Your task to perform on an android device: open app "Fetch Rewards" Image 0: 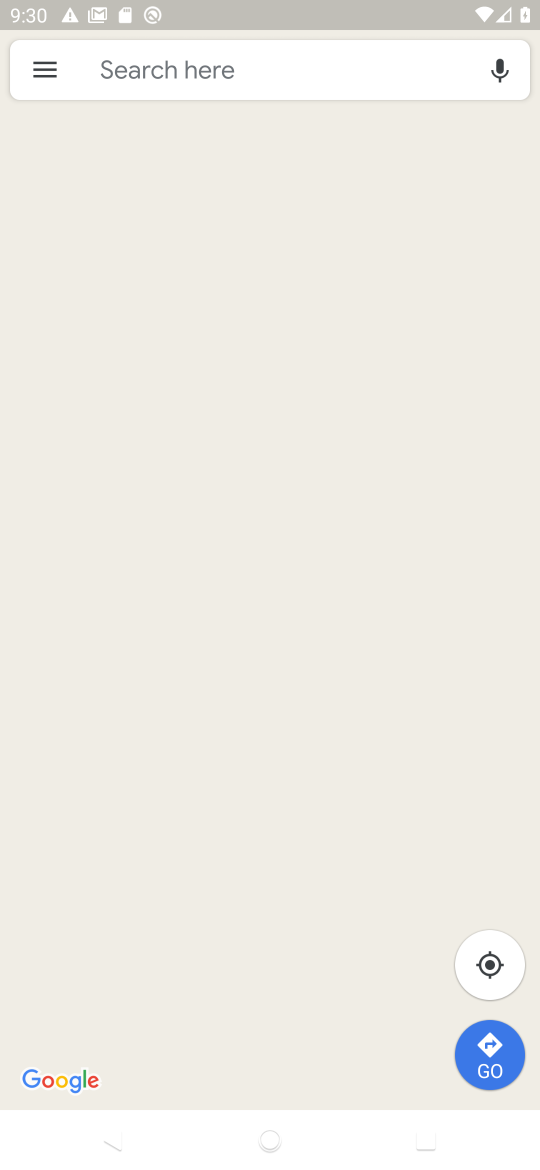
Step 0: click (271, 123)
Your task to perform on an android device: open app "Fetch Rewards" Image 1: 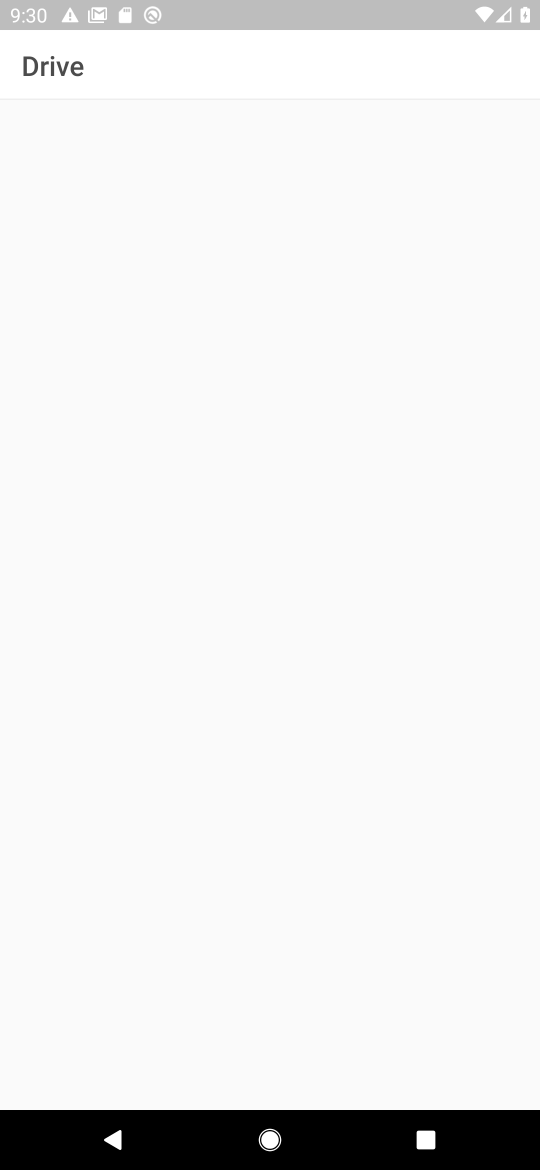
Step 1: press back button
Your task to perform on an android device: open app "Fetch Rewards" Image 2: 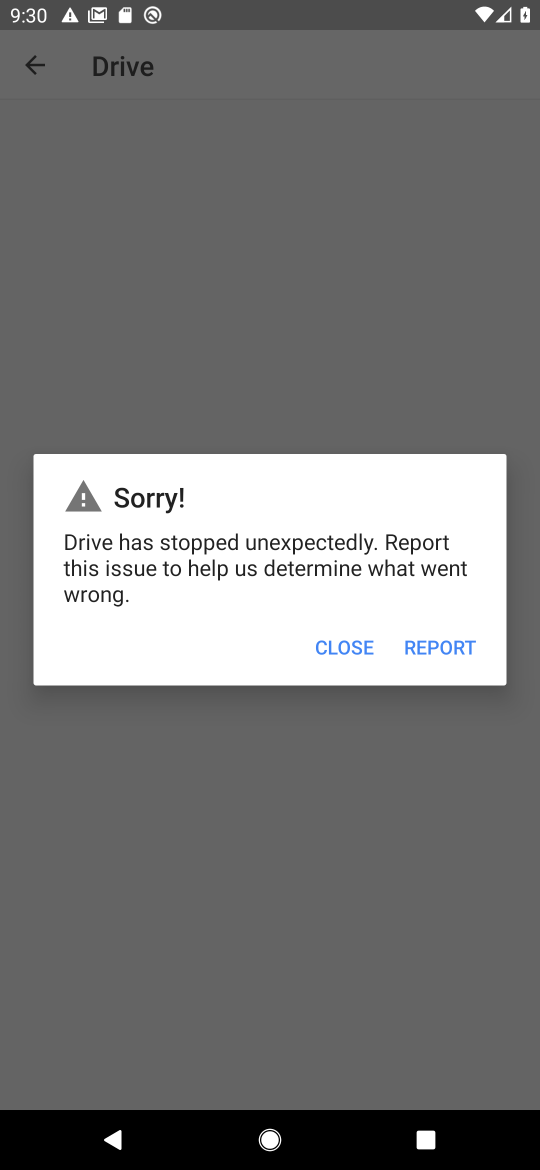
Step 2: press home button
Your task to perform on an android device: open app "Fetch Rewards" Image 3: 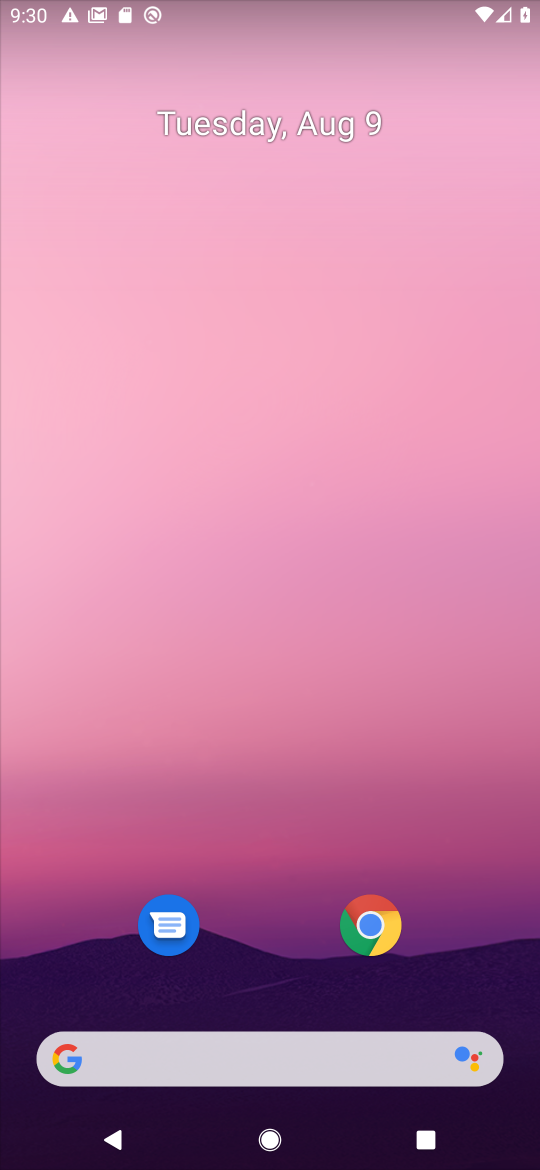
Step 3: drag from (258, 973) to (311, 3)
Your task to perform on an android device: open app "Fetch Rewards" Image 4: 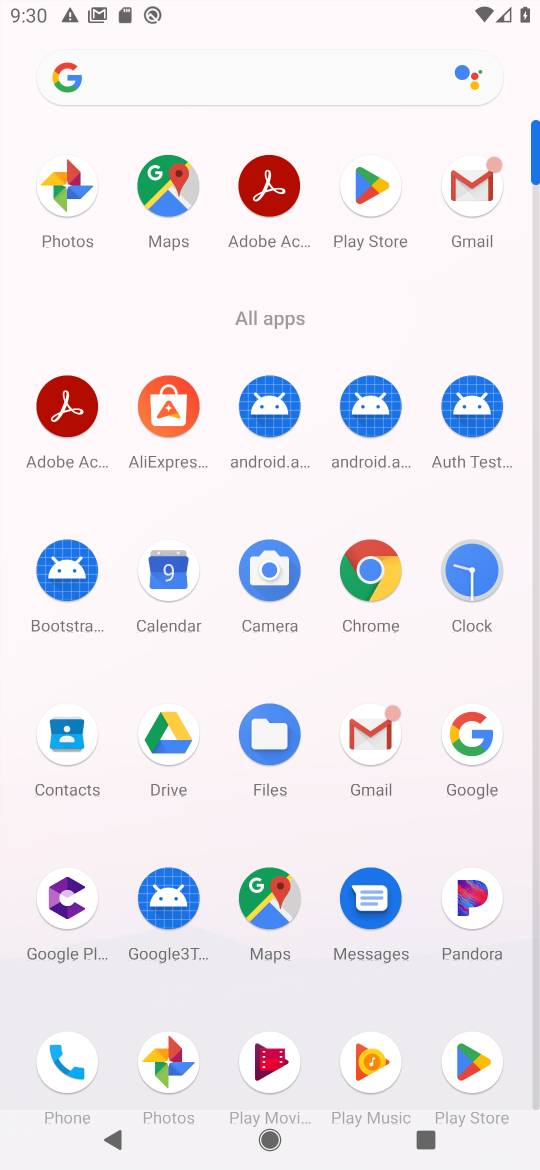
Step 4: click (385, 196)
Your task to perform on an android device: open app "Fetch Rewards" Image 5: 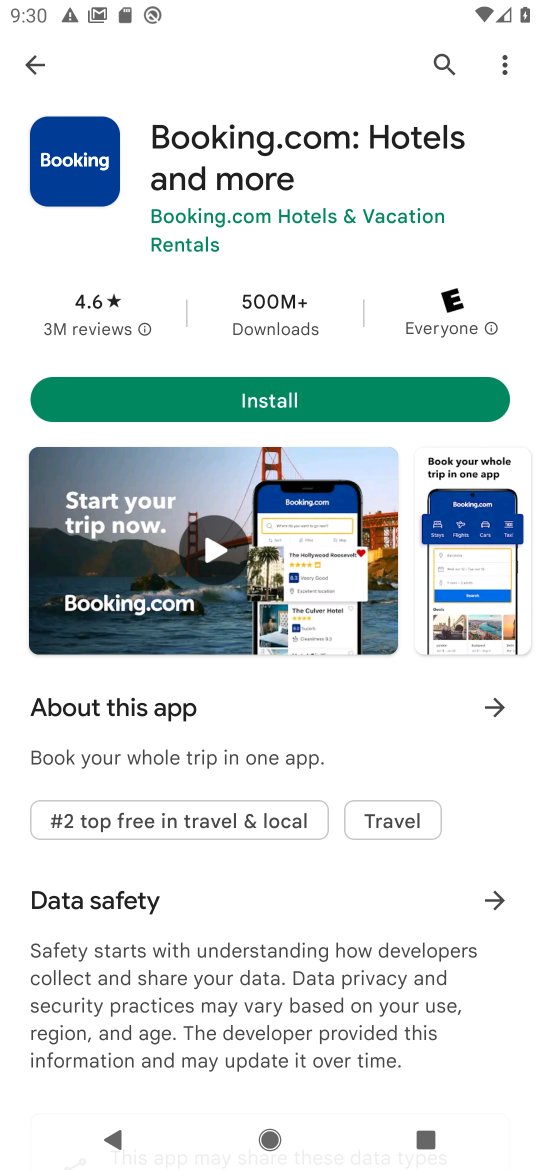
Step 5: click (30, 60)
Your task to perform on an android device: open app "Fetch Rewards" Image 6: 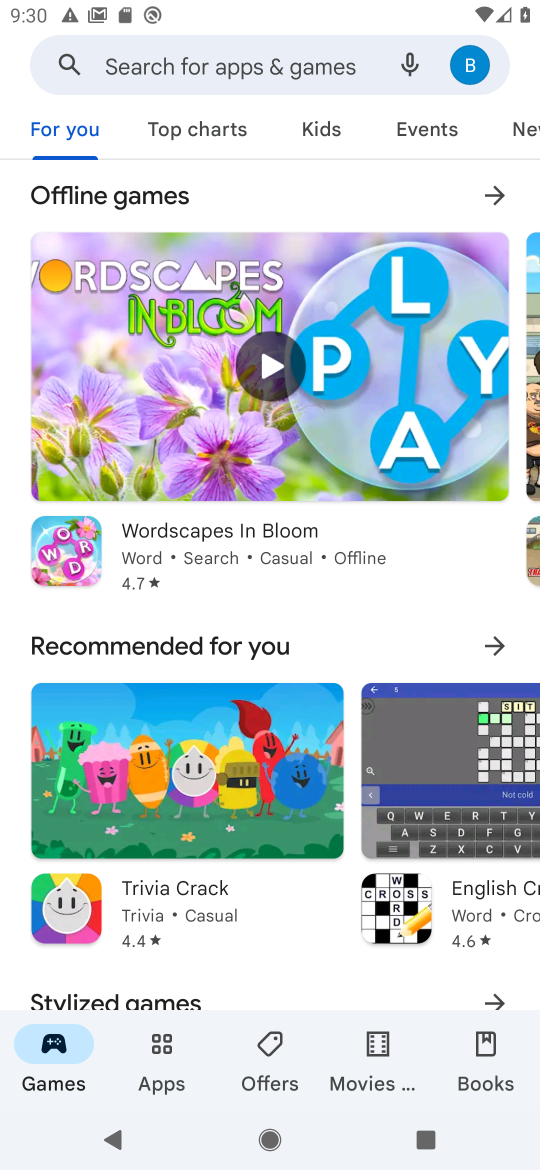
Step 6: click (197, 73)
Your task to perform on an android device: open app "Fetch Rewards" Image 7: 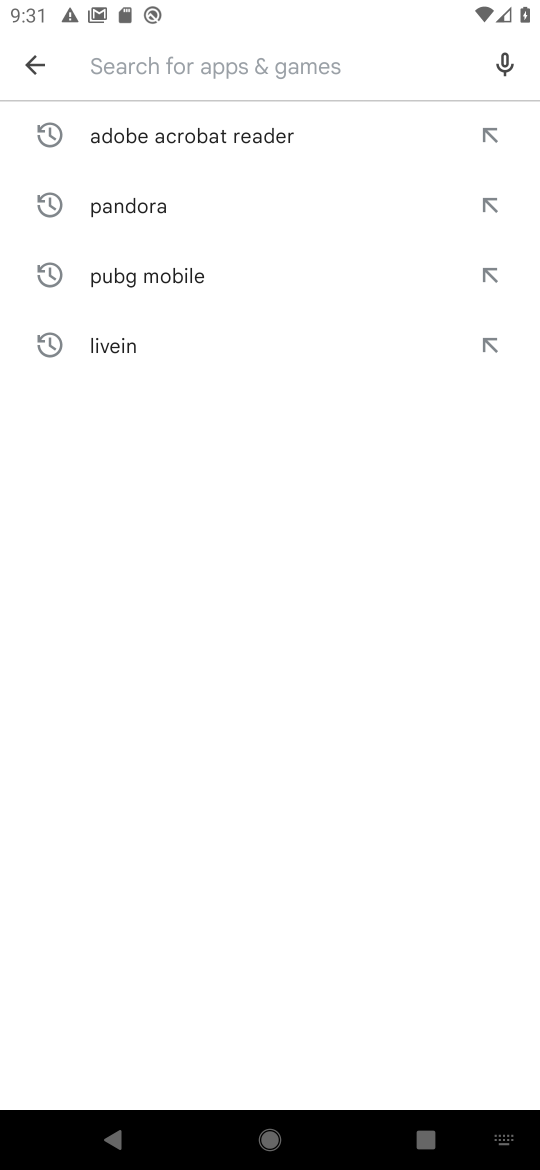
Step 7: type "Fetch Rewards"
Your task to perform on an android device: open app "Fetch Rewards" Image 8: 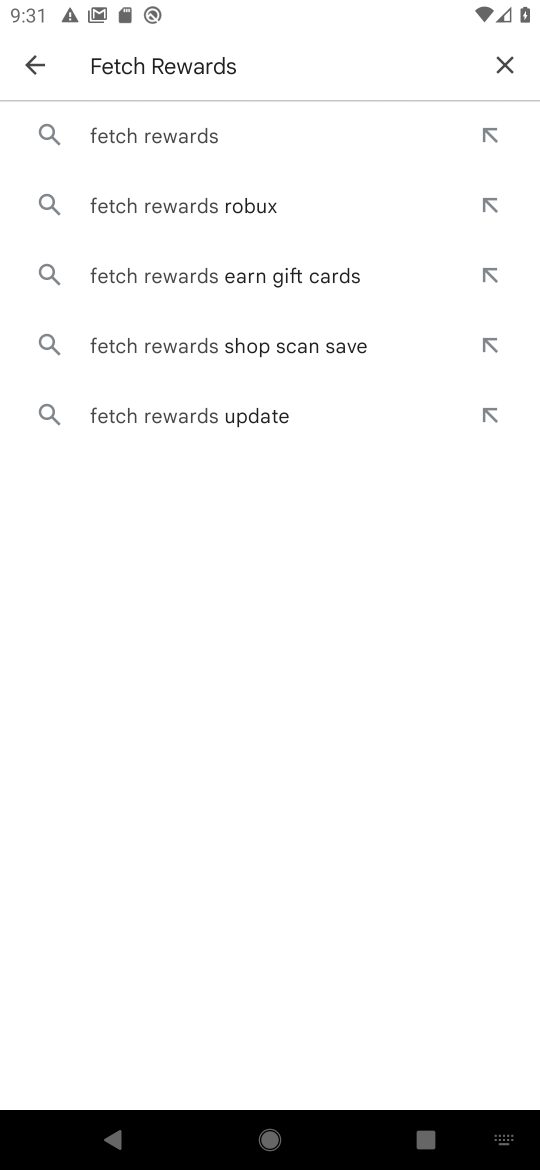
Step 8: click (157, 136)
Your task to perform on an android device: open app "Fetch Rewards" Image 9: 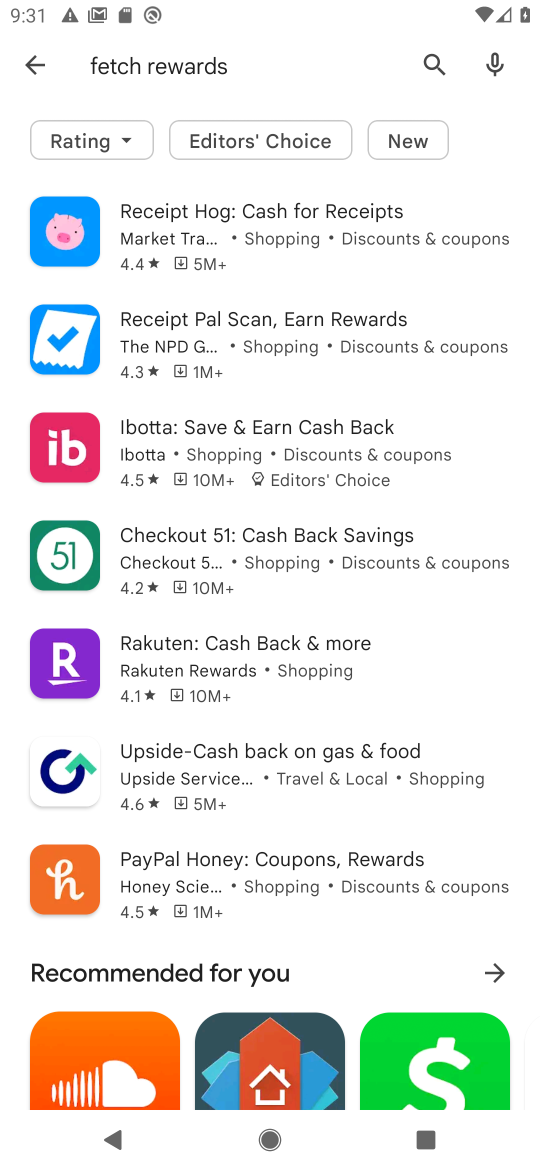
Step 9: task complete